Your task to perform on an android device: open chrome privacy settings Image 0: 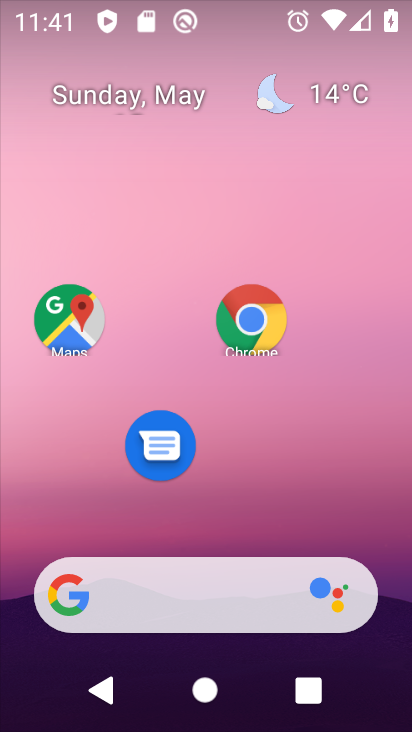
Step 0: drag from (196, 534) to (368, 124)
Your task to perform on an android device: open chrome privacy settings Image 1: 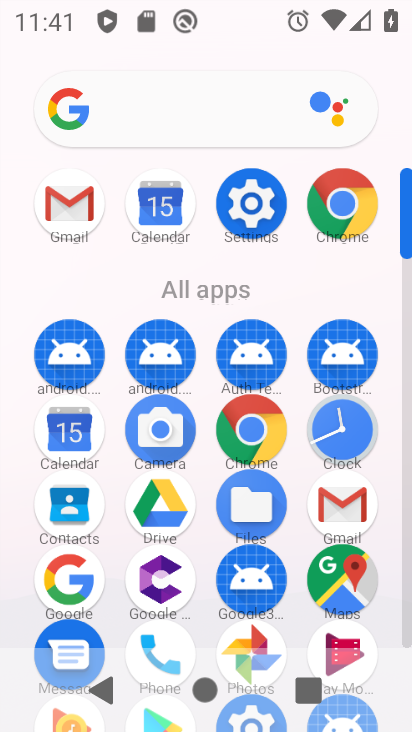
Step 1: click (344, 213)
Your task to perform on an android device: open chrome privacy settings Image 2: 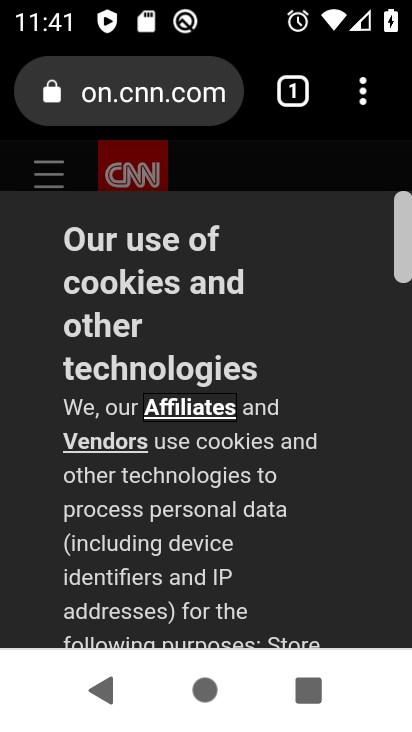
Step 2: drag from (367, 99) to (255, 471)
Your task to perform on an android device: open chrome privacy settings Image 3: 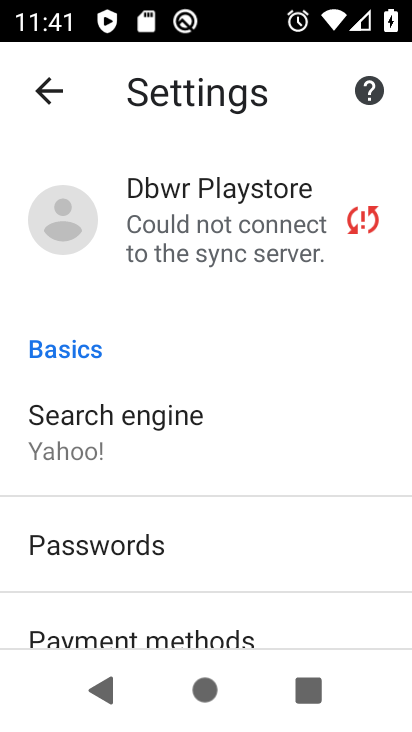
Step 3: drag from (217, 454) to (338, 149)
Your task to perform on an android device: open chrome privacy settings Image 4: 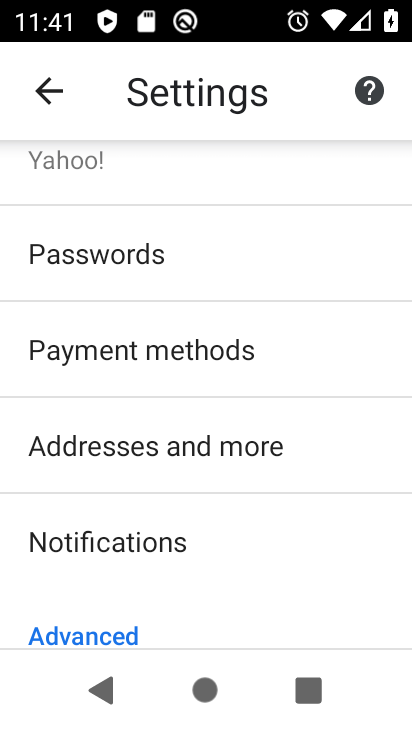
Step 4: drag from (258, 478) to (236, 601)
Your task to perform on an android device: open chrome privacy settings Image 5: 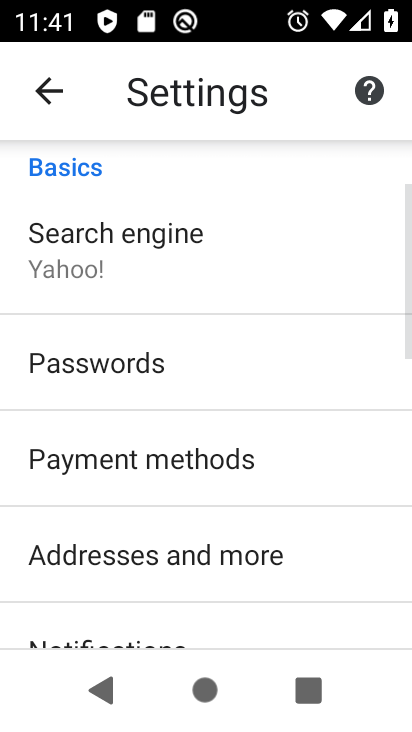
Step 5: drag from (218, 617) to (340, 144)
Your task to perform on an android device: open chrome privacy settings Image 6: 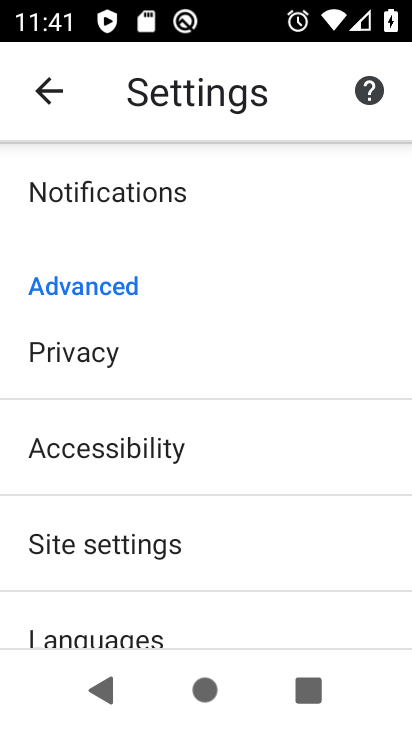
Step 6: click (116, 354)
Your task to perform on an android device: open chrome privacy settings Image 7: 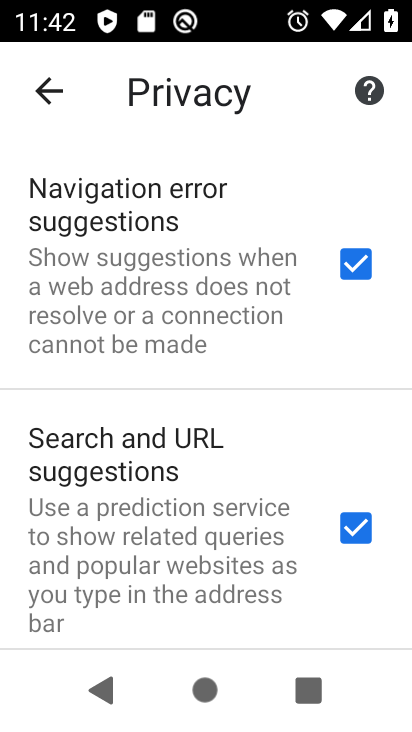
Step 7: task complete